Your task to perform on an android device: change notifications settings Image 0: 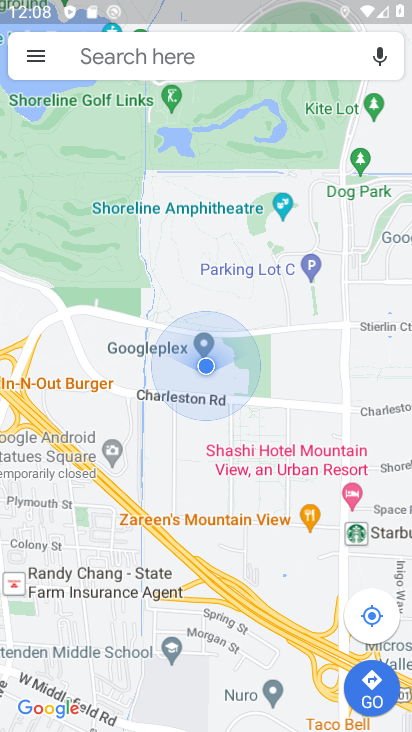
Step 0: press home button
Your task to perform on an android device: change notifications settings Image 1: 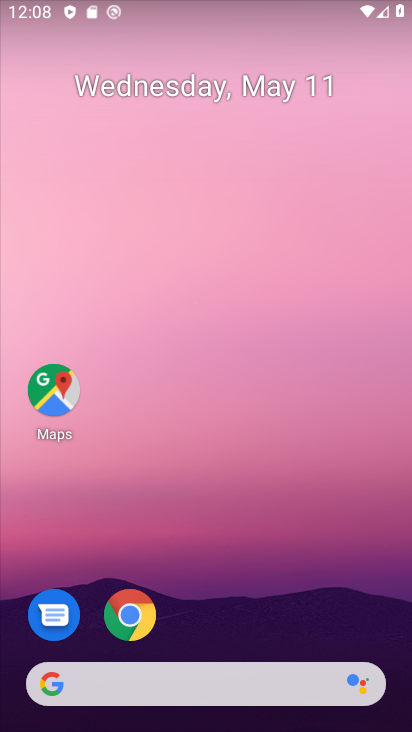
Step 1: drag from (212, 639) to (246, 54)
Your task to perform on an android device: change notifications settings Image 2: 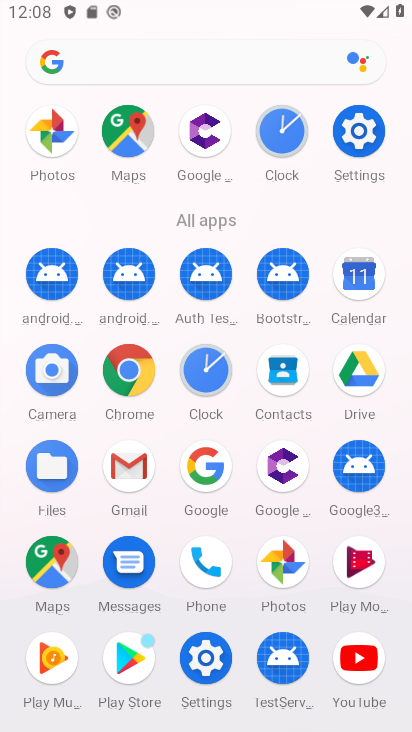
Step 2: click (354, 134)
Your task to perform on an android device: change notifications settings Image 3: 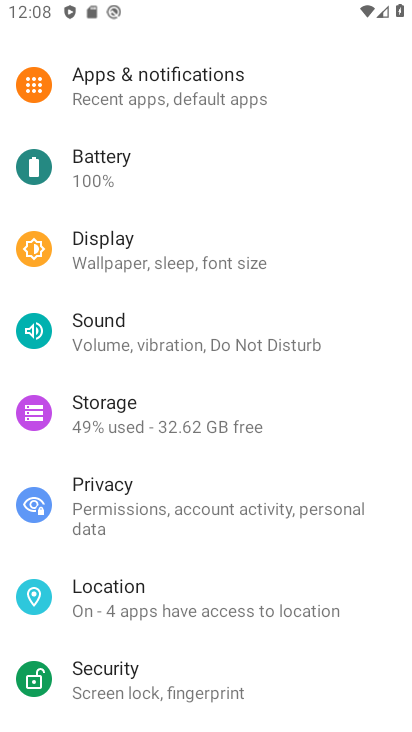
Step 3: click (203, 97)
Your task to perform on an android device: change notifications settings Image 4: 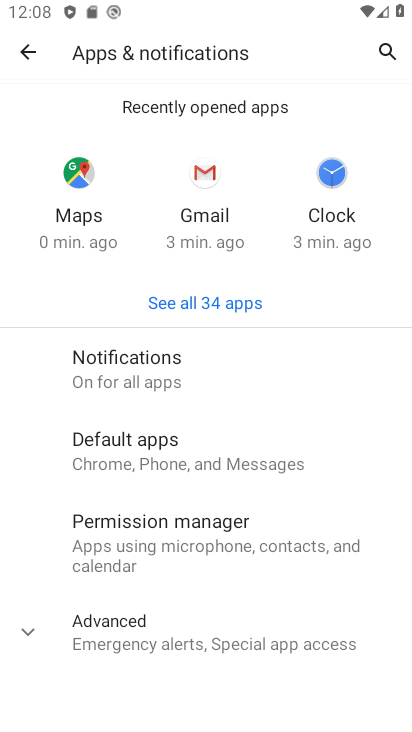
Step 4: click (208, 353)
Your task to perform on an android device: change notifications settings Image 5: 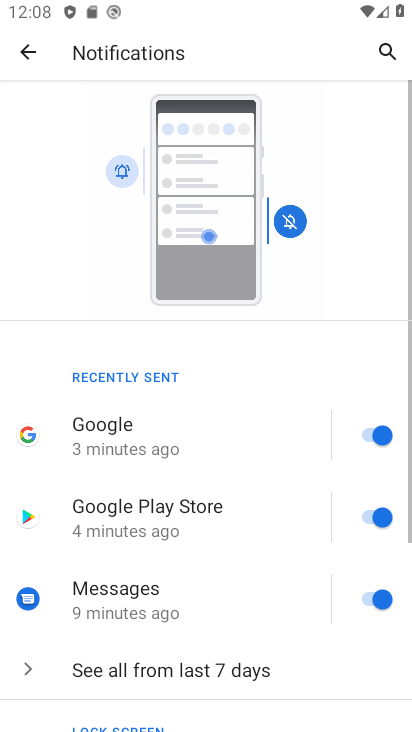
Step 5: drag from (178, 562) to (254, 92)
Your task to perform on an android device: change notifications settings Image 6: 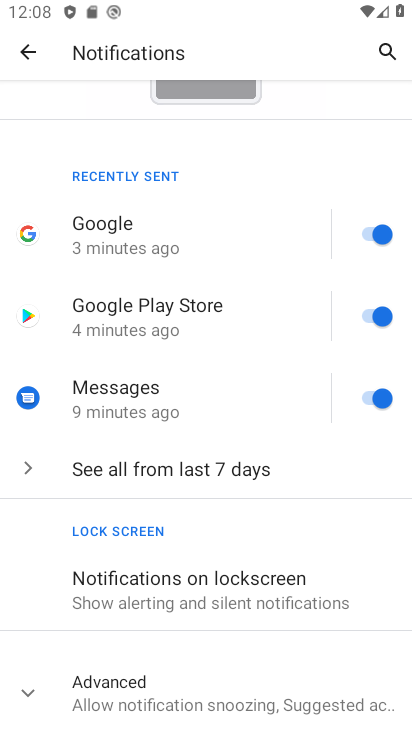
Step 6: click (167, 685)
Your task to perform on an android device: change notifications settings Image 7: 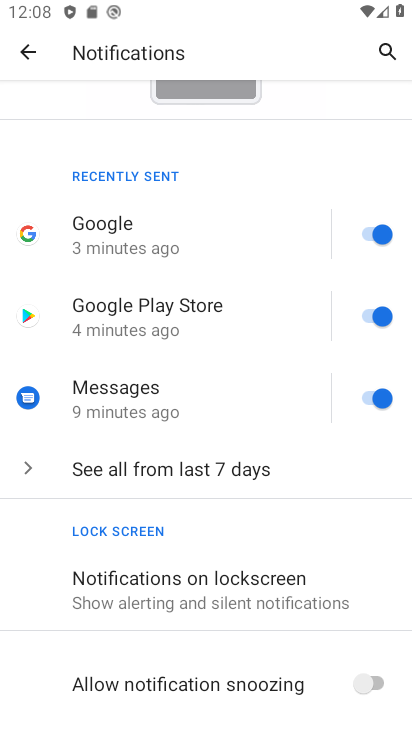
Step 7: drag from (135, 644) to (198, 115)
Your task to perform on an android device: change notifications settings Image 8: 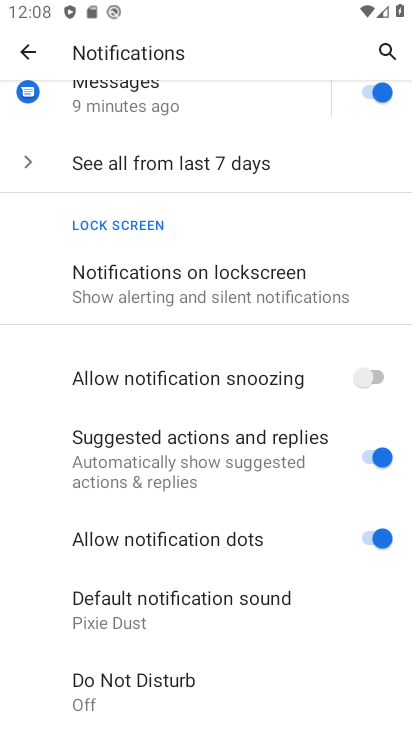
Step 8: drag from (162, 645) to (201, 218)
Your task to perform on an android device: change notifications settings Image 9: 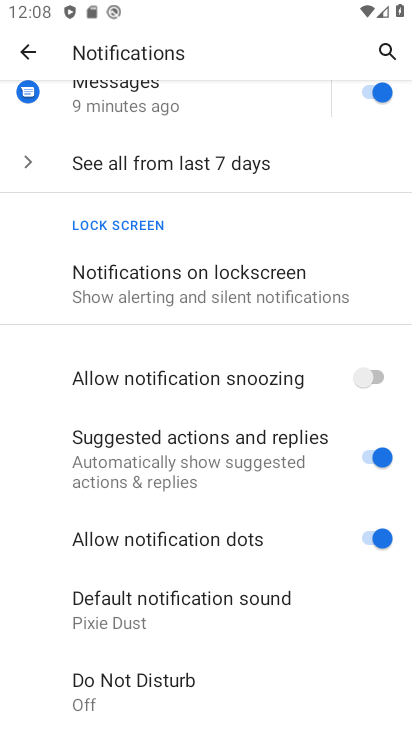
Step 9: click (378, 391)
Your task to perform on an android device: change notifications settings Image 10: 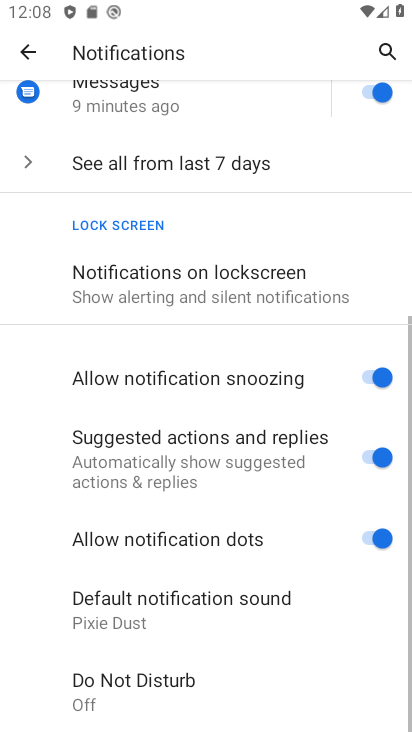
Step 10: click (380, 450)
Your task to perform on an android device: change notifications settings Image 11: 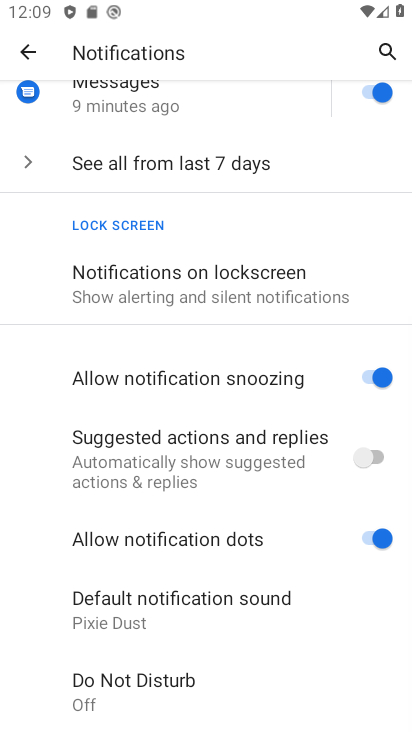
Step 11: click (379, 536)
Your task to perform on an android device: change notifications settings Image 12: 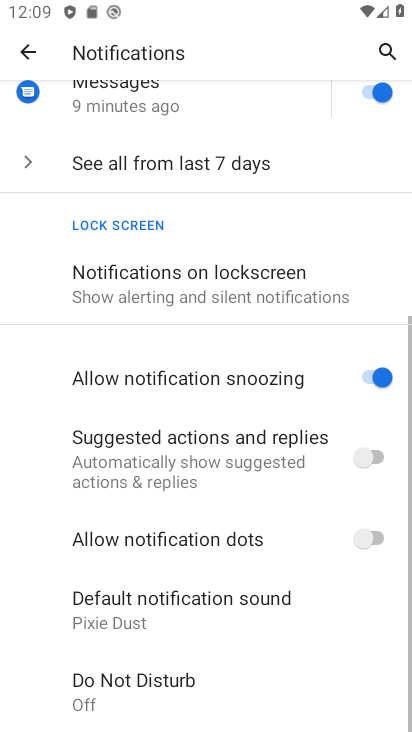
Step 12: task complete